Your task to perform on an android device: What is the recent news? Image 0: 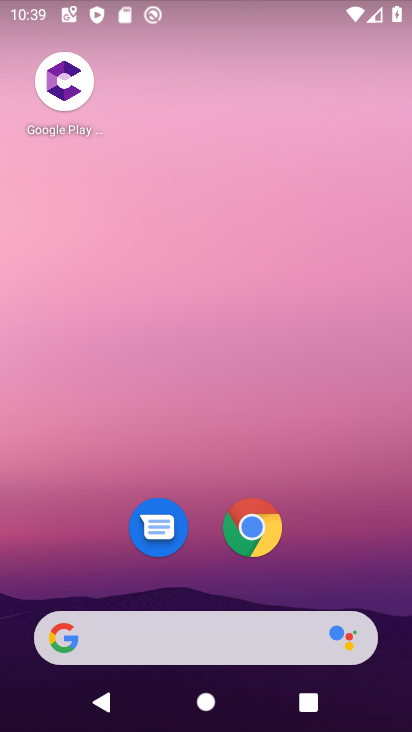
Step 0: drag from (347, 513) to (294, 105)
Your task to perform on an android device: What is the recent news? Image 1: 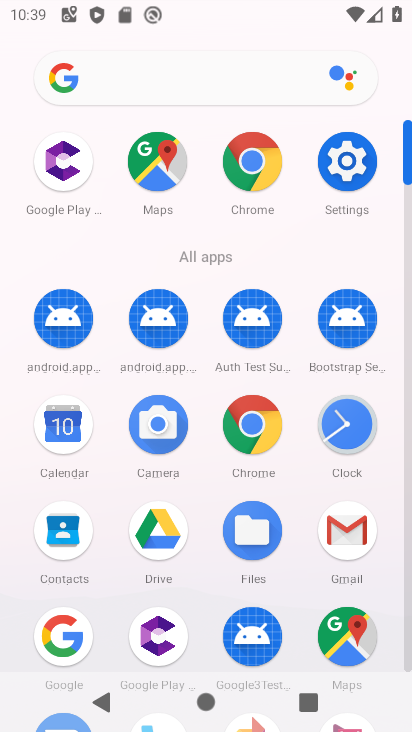
Step 1: click (252, 158)
Your task to perform on an android device: What is the recent news? Image 2: 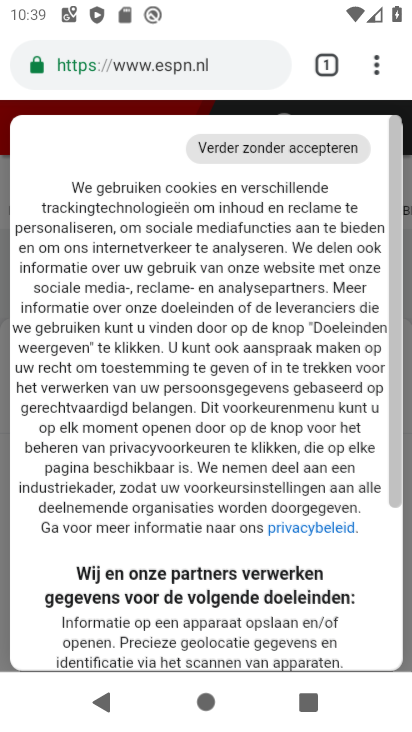
Step 2: click (214, 66)
Your task to perform on an android device: What is the recent news? Image 3: 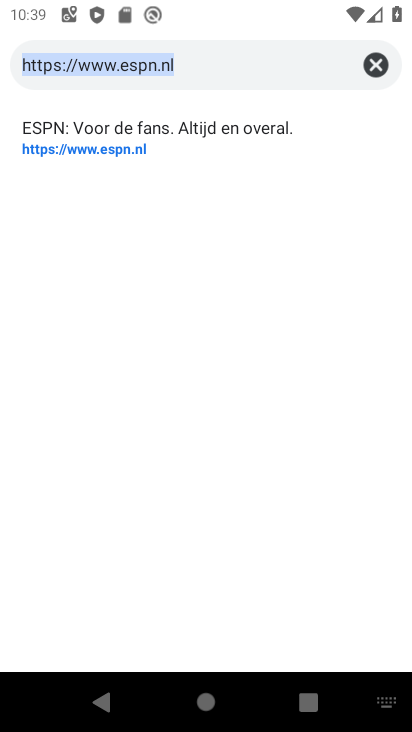
Step 3: click (381, 68)
Your task to perform on an android device: What is the recent news? Image 4: 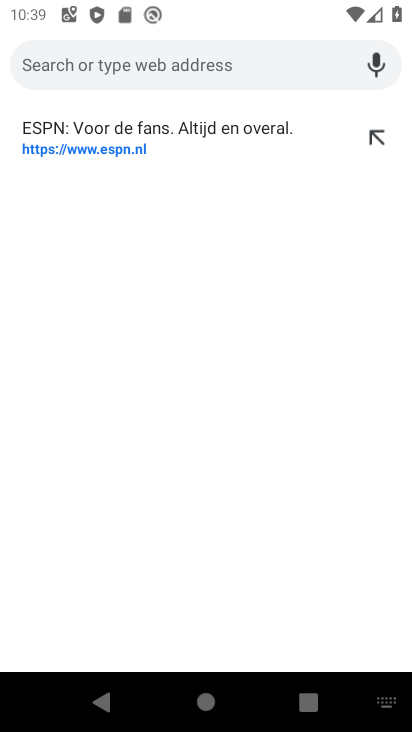
Step 4: type "recent news"
Your task to perform on an android device: What is the recent news? Image 5: 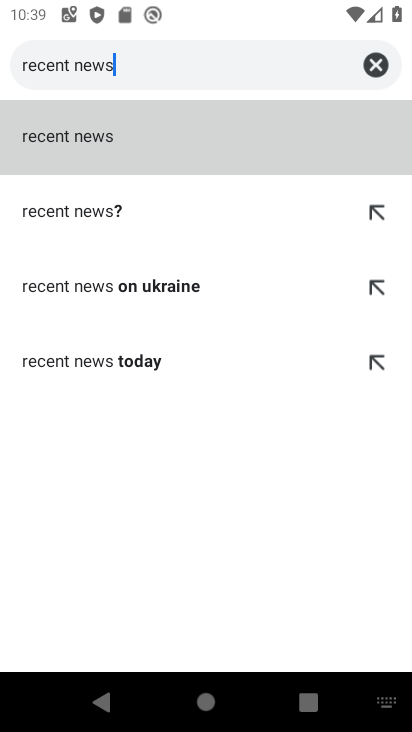
Step 5: click (131, 149)
Your task to perform on an android device: What is the recent news? Image 6: 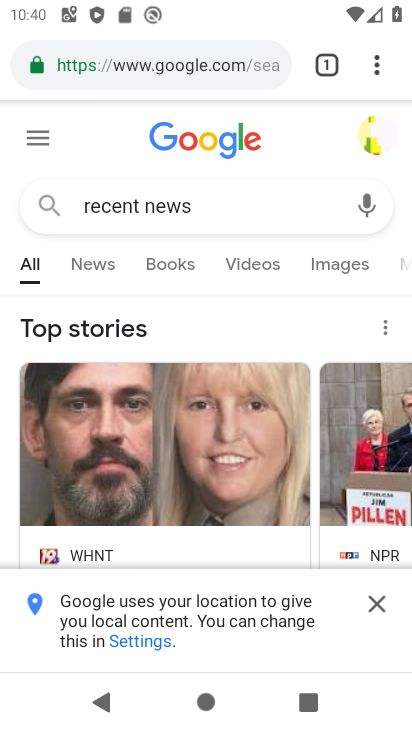
Step 6: task complete